Your task to perform on an android device: turn on the 12-hour format for clock Image 0: 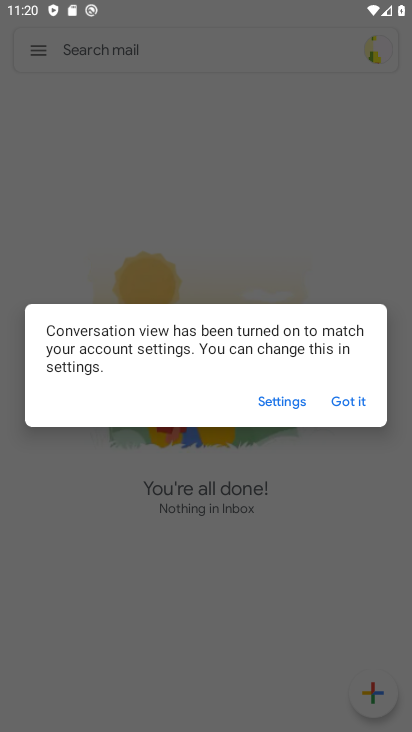
Step 0: press back button
Your task to perform on an android device: turn on the 12-hour format for clock Image 1: 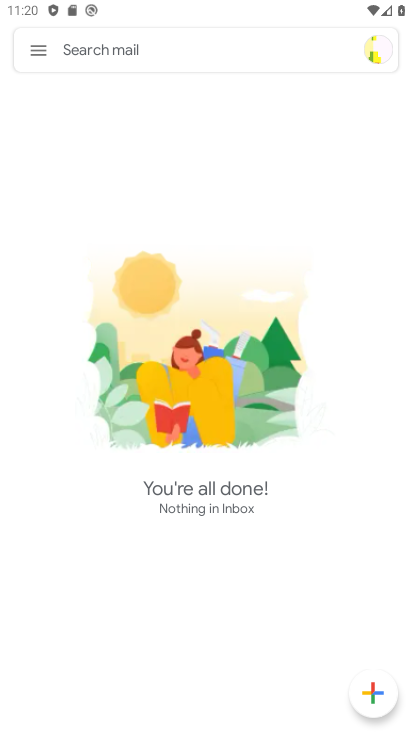
Step 1: press back button
Your task to perform on an android device: turn on the 12-hour format for clock Image 2: 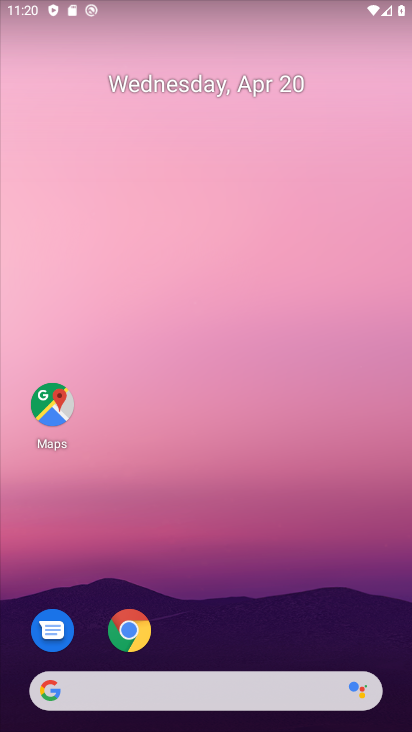
Step 2: drag from (181, 665) to (257, 84)
Your task to perform on an android device: turn on the 12-hour format for clock Image 3: 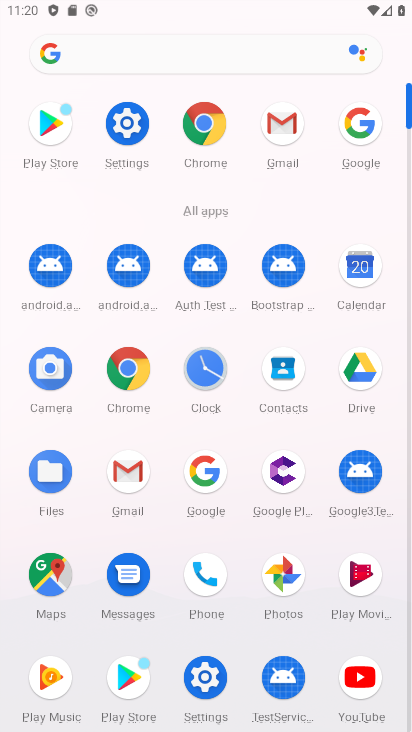
Step 3: click (179, 366)
Your task to perform on an android device: turn on the 12-hour format for clock Image 4: 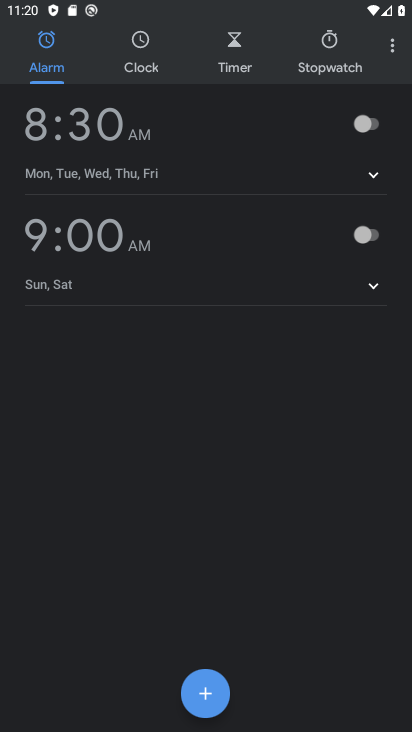
Step 4: click (394, 54)
Your task to perform on an android device: turn on the 12-hour format for clock Image 5: 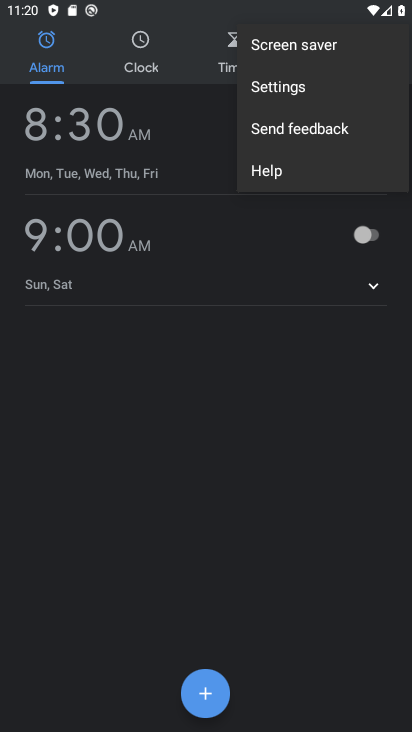
Step 5: click (312, 93)
Your task to perform on an android device: turn on the 12-hour format for clock Image 6: 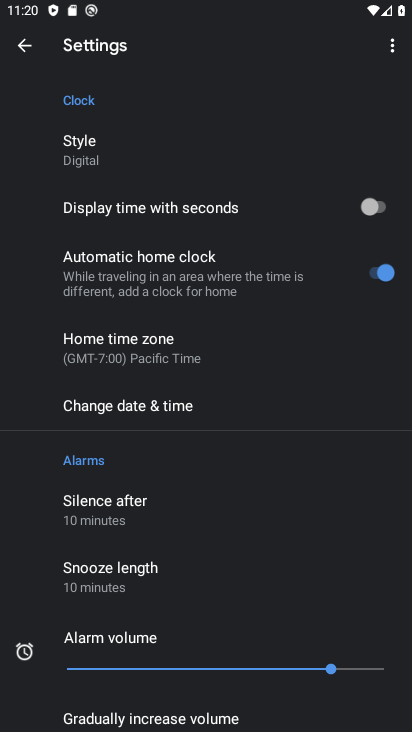
Step 6: click (186, 405)
Your task to perform on an android device: turn on the 12-hour format for clock Image 7: 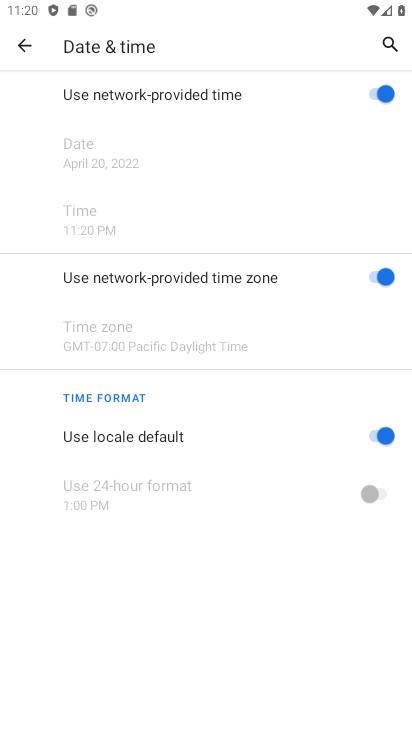
Step 7: task complete